Your task to perform on an android device: turn off wifi Image 0: 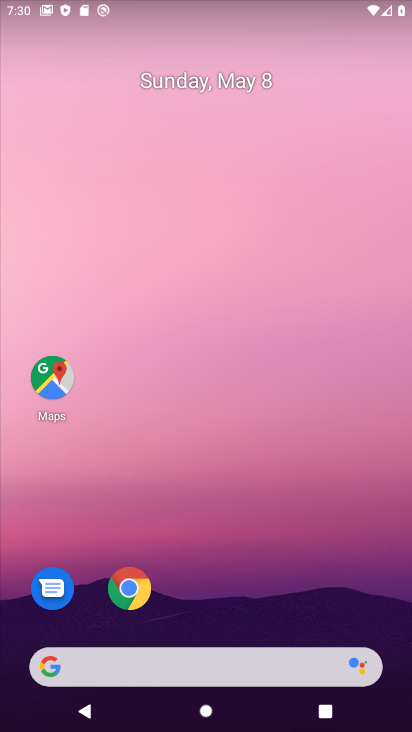
Step 0: drag from (191, 650) to (342, 102)
Your task to perform on an android device: turn off wifi Image 1: 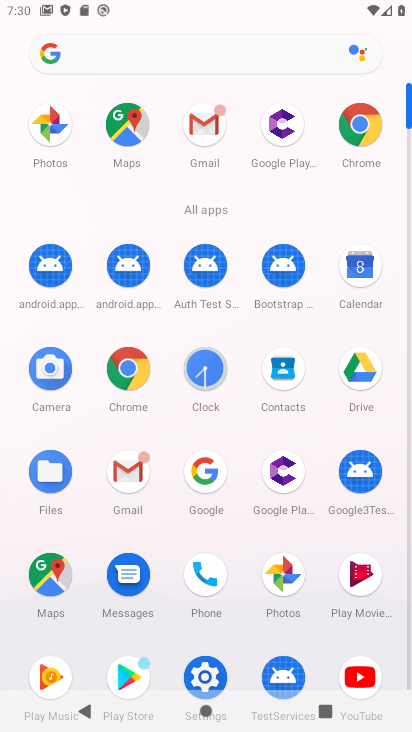
Step 1: click (210, 679)
Your task to perform on an android device: turn off wifi Image 2: 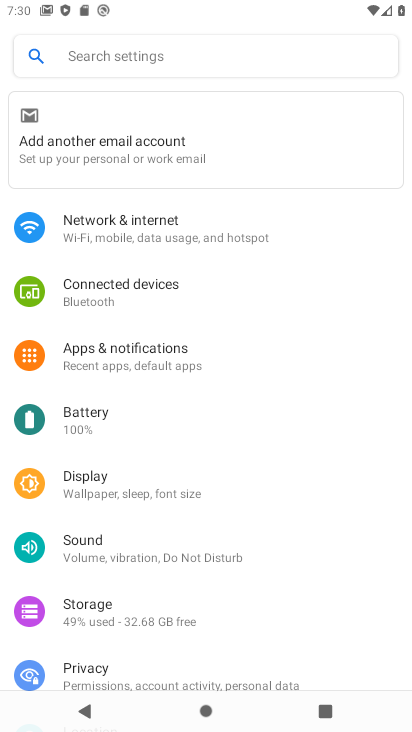
Step 2: click (183, 224)
Your task to perform on an android device: turn off wifi Image 3: 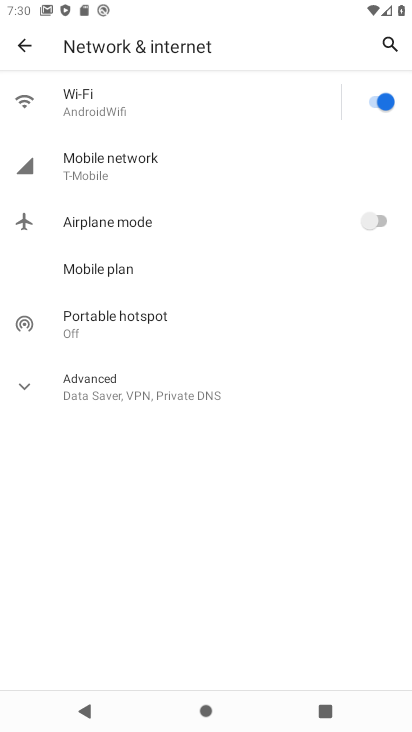
Step 3: click (372, 101)
Your task to perform on an android device: turn off wifi Image 4: 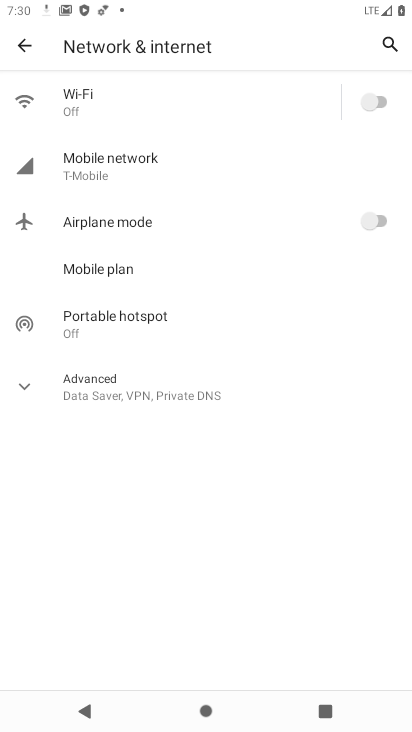
Step 4: task complete